Your task to perform on an android device: Do I have any events today? Image 0: 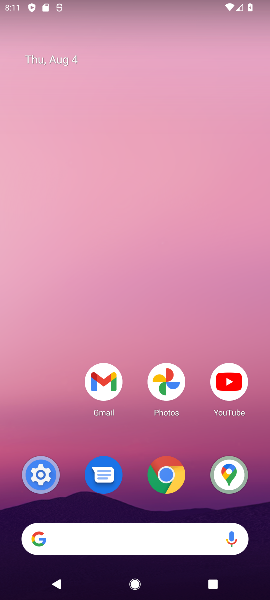
Step 0: drag from (146, 484) to (156, 129)
Your task to perform on an android device: Do I have any events today? Image 1: 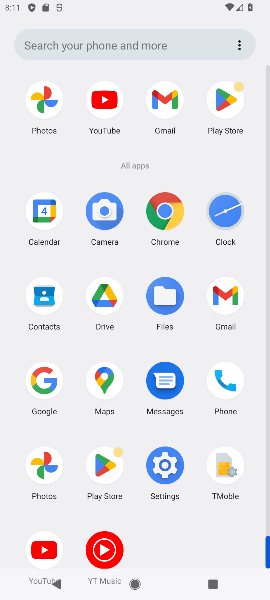
Step 1: click (44, 208)
Your task to perform on an android device: Do I have any events today? Image 2: 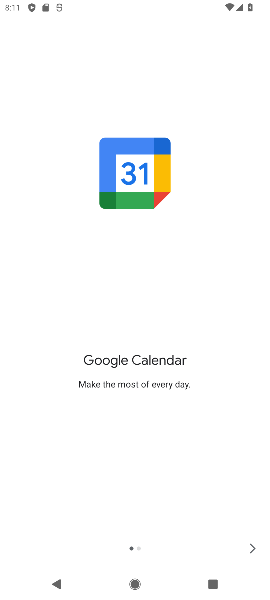
Step 2: drag from (170, 436) to (203, 135)
Your task to perform on an android device: Do I have any events today? Image 3: 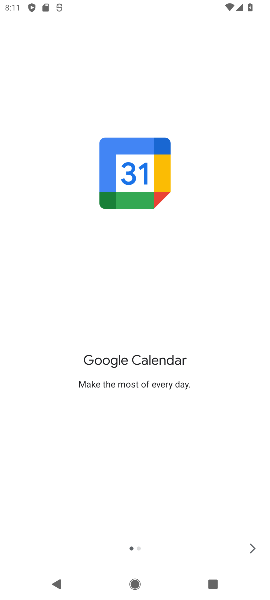
Step 3: click (250, 550)
Your task to perform on an android device: Do I have any events today? Image 4: 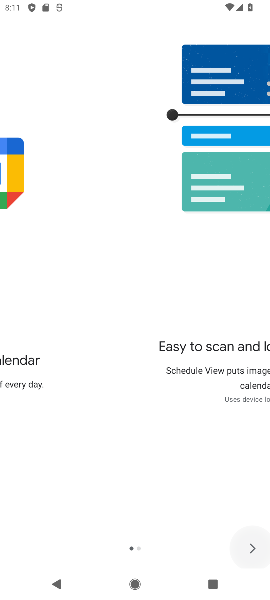
Step 4: click (250, 550)
Your task to perform on an android device: Do I have any events today? Image 5: 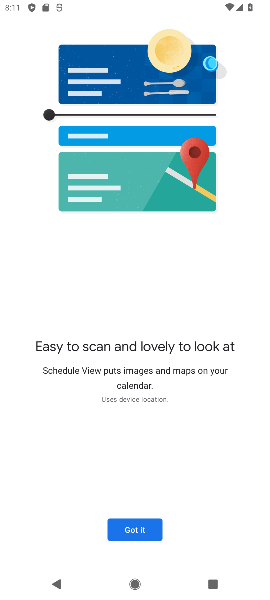
Step 5: click (137, 523)
Your task to perform on an android device: Do I have any events today? Image 6: 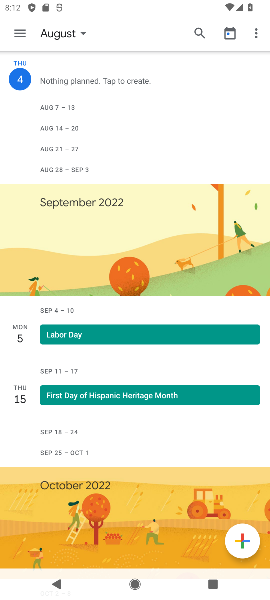
Step 6: drag from (109, 517) to (207, 149)
Your task to perform on an android device: Do I have any events today? Image 7: 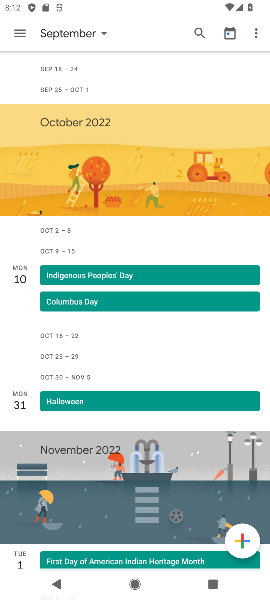
Step 7: click (79, 28)
Your task to perform on an android device: Do I have any events today? Image 8: 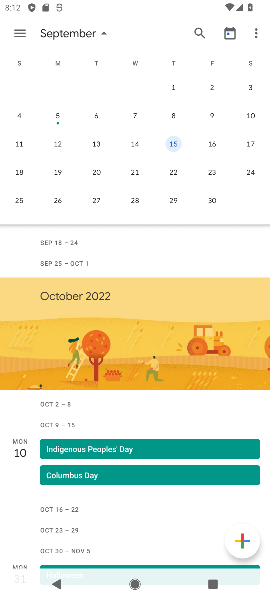
Step 8: click (216, 33)
Your task to perform on an android device: Do I have any events today? Image 9: 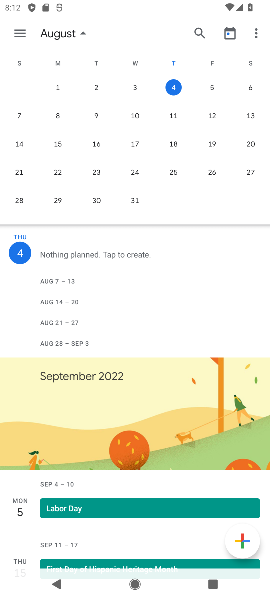
Step 9: task complete